Your task to perform on an android device: Go to accessibility settings Image 0: 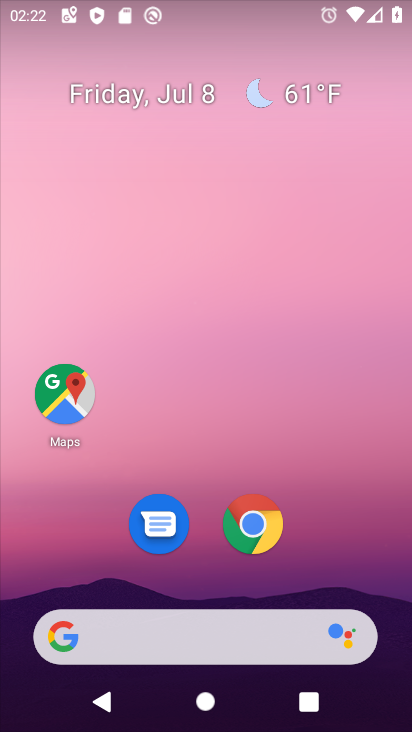
Step 0: drag from (332, 541) to (218, 44)
Your task to perform on an android device: Go to accessibility settings Image 1: 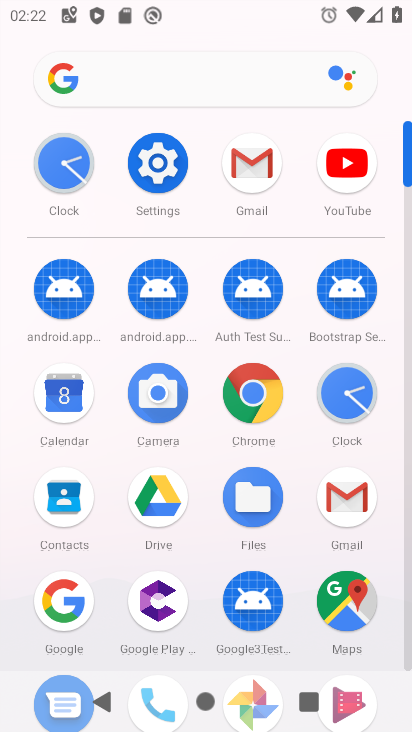
Step 1: click (154, 172)
Your task to perform on an android device: Go to accessibility settings Image 2: 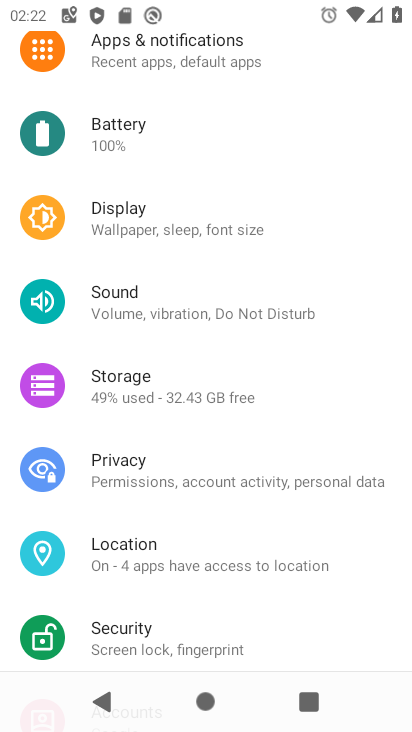
Step 2: drag from (296, 541) to (254, 94)
Your task to perform on an android device: Go to accessibility settings Image 3: 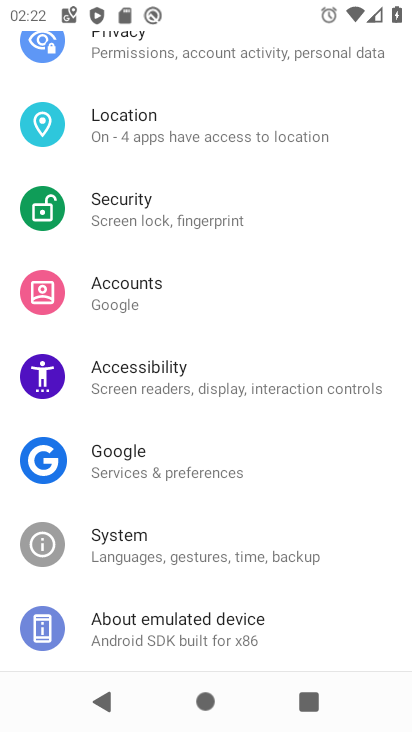
Step 3: click (214, 374)
Your task to perform on an android device: Go to accessibility settings Image 4: 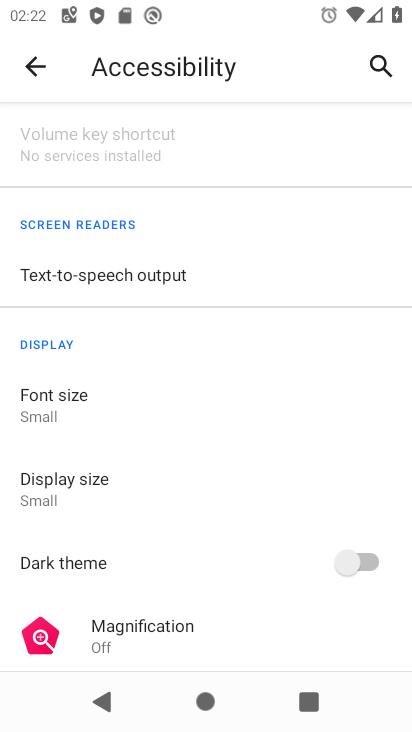
Step 4: task complete